Your task to perform on an android device: change the clock style Image 0: 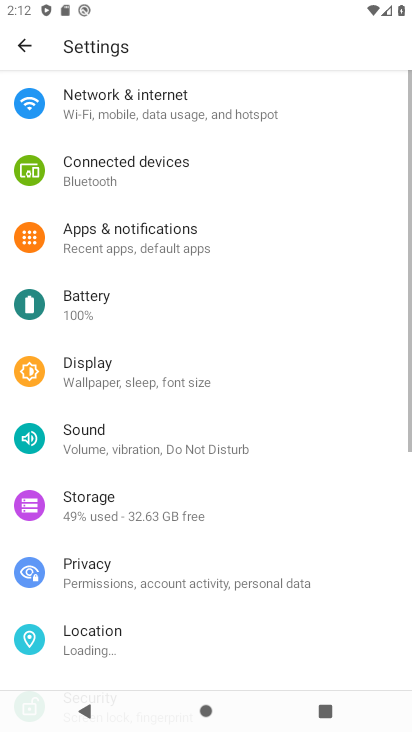
Step 0: press home button
Your task to perform on an android device: change the clock style Image 1: 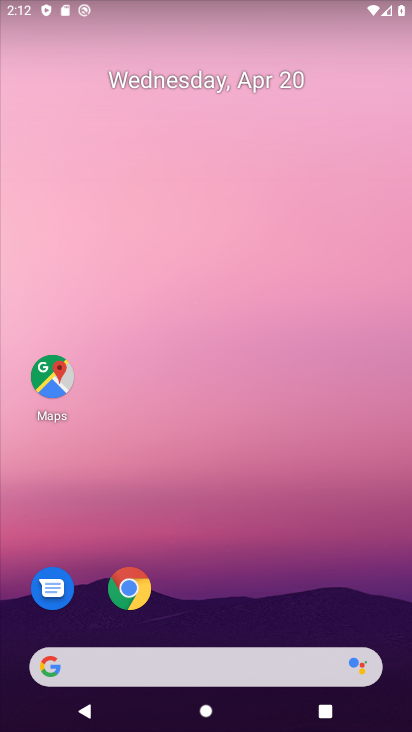
Step 1: drag from (205, 584) to (332, 0)
Your task to perform on an android device: change the clock style Image 2: 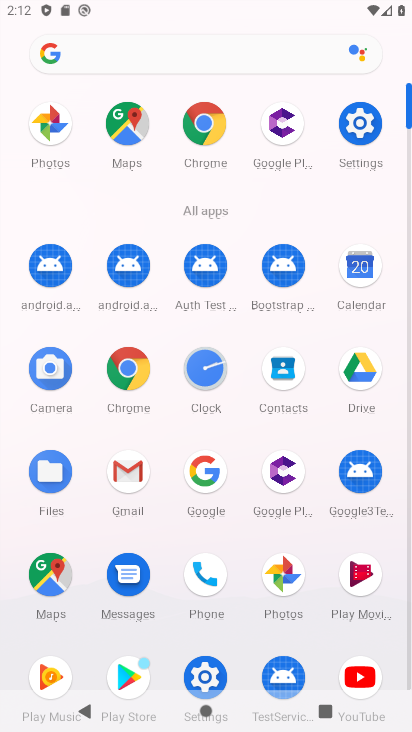
Step 2: click (204, 371)
Your task to perform on an android device: change the clock style Image 3: 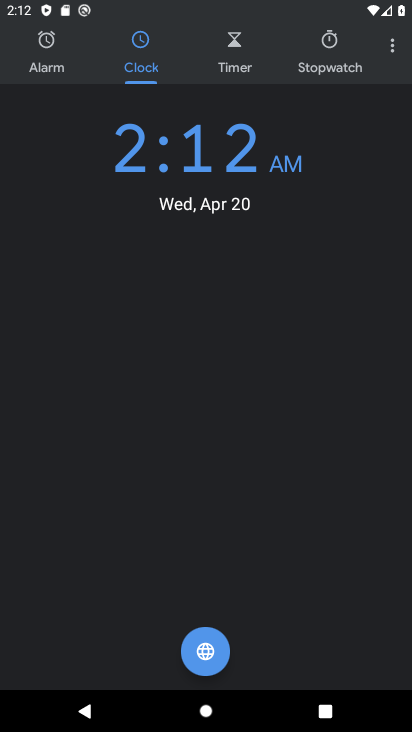
Step 3: click (387, 43)
Your task to perform on an android device: change the clock style Image 4: 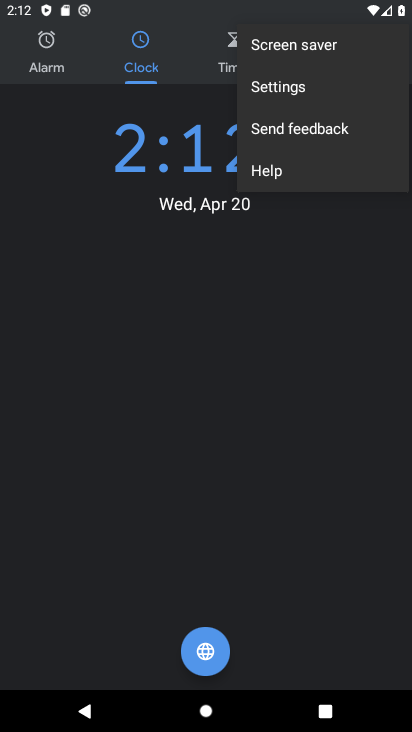
Step 4: click (264, 79)
Your task to perform on an android device: change the clock style Image 5: 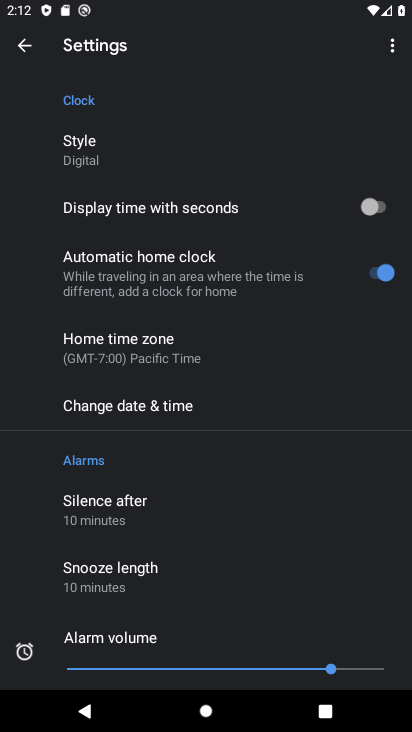
Step 5: click (112, 151)
Your task to perform on an android device: change the clock style Image 6: 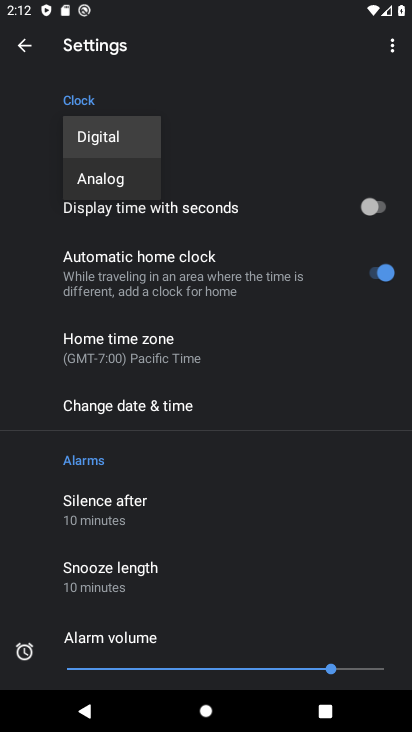
Step 6: click (118, 178)
Your task to perform on an android device: change the clock style Image 7: 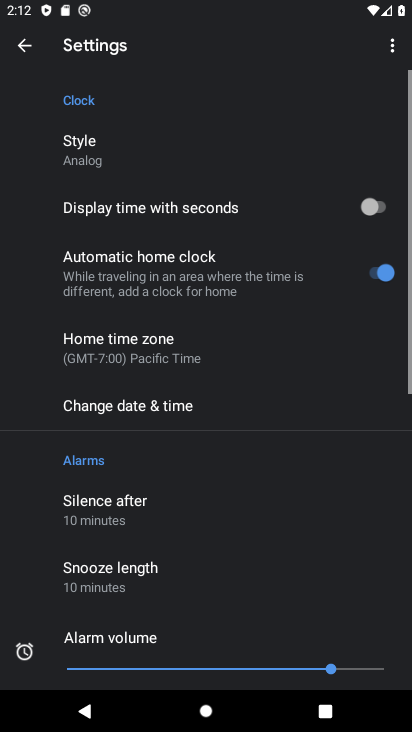
Step 7: task complete